Your task to perform on an android device: add a contact in the contacts app Image 0: 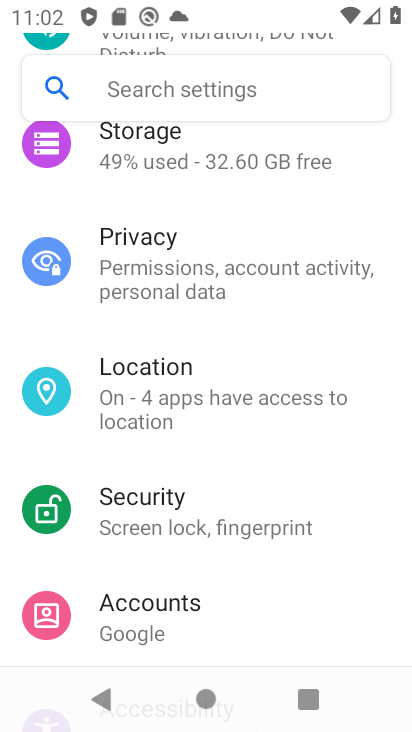
Step 0: drag from (193, 525) to (224, 230)
Your task to perform on an android device: add a contact in the contacts app Image 1: 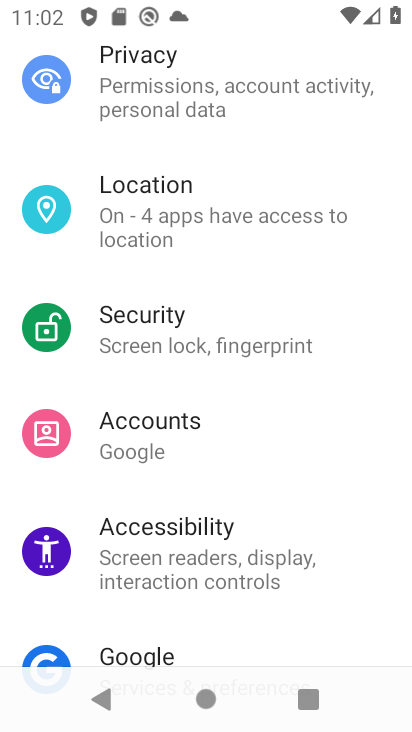
Step 1: drag from (263, 521) to (245, 148)
Your task to perform on an android device: add a contact in the contacts app Image 2: 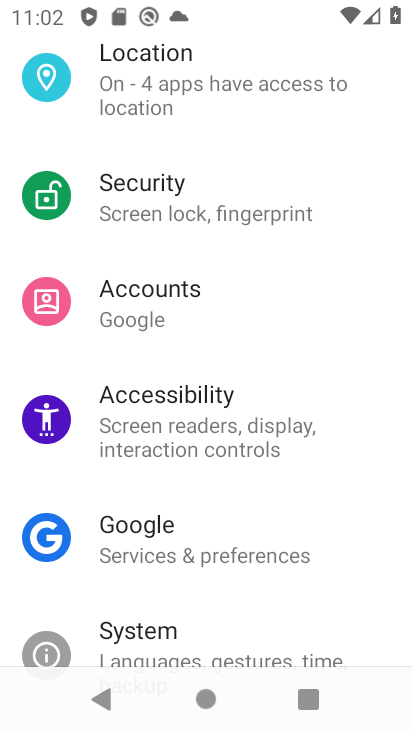
Step 2: press back button
Your task to perform on an android device: add a contact in the contacts app Image 3: 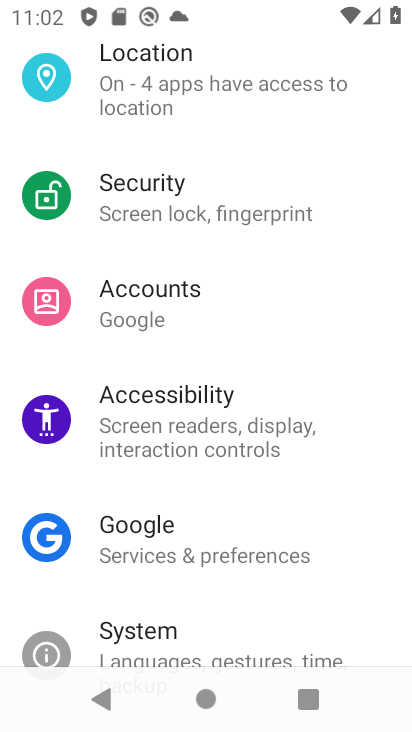
Step 3: press back button
Your task to perform on an android device: add a contact in the contacts app Image 4: 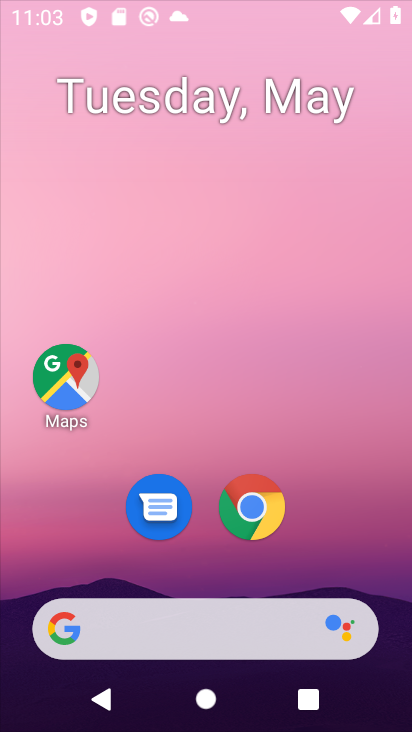
Step 4: press back button
Your task to perform on an android device: add a contact in the contacts app Image 5: 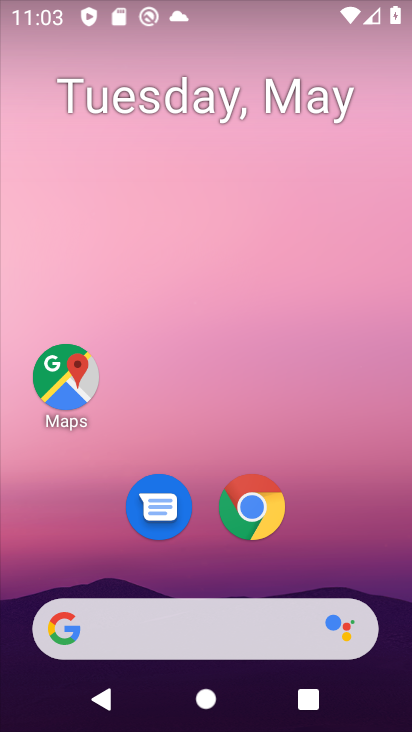
Step 5: drag from (256, 656) to (151, 118)
Your task to perform on an android device: add a contact in the contacts app Image 6: 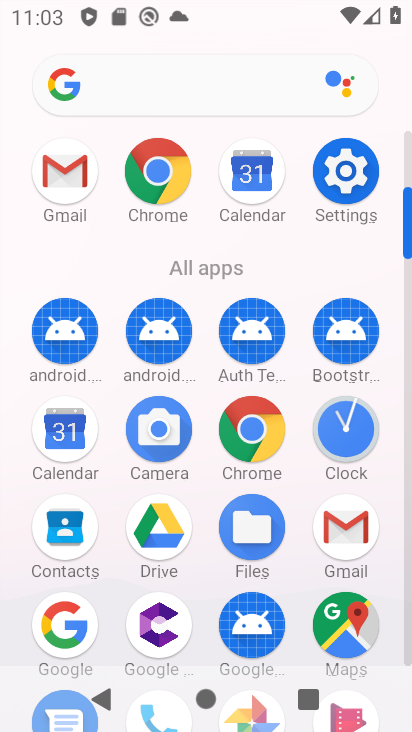
Step 6: click (79, 528)
Your task to perform on an android device: add a contact in the contacts app Image 7: 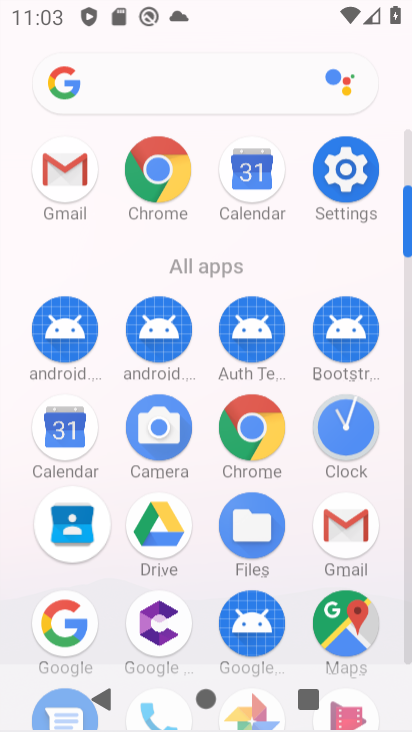
Step 7: click (69, 522)
Your task to perform on an android device: add a contact in the contacts app Image 8: 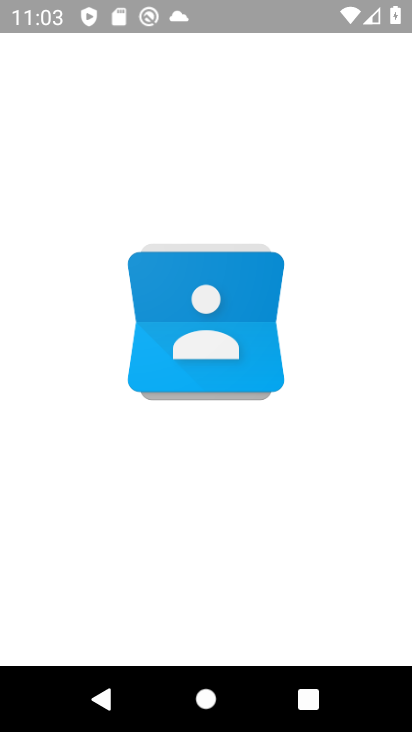
Step 8: click (75, 523)
Your task to perform on an android device: add a contact in the contacts app Image 9: 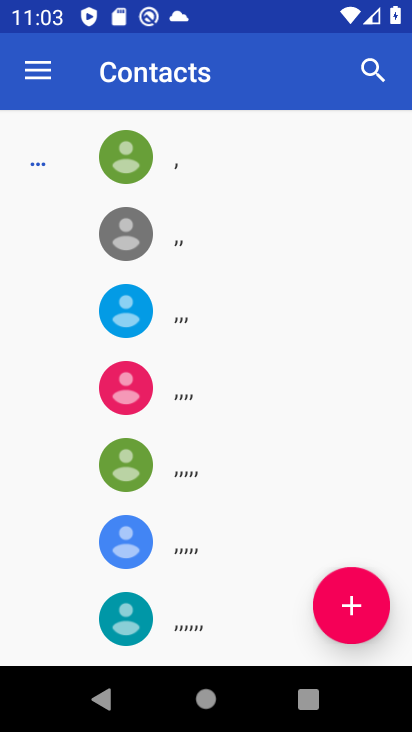
Step 9: click (352, 598)
Your task to perform on an android device: add a contact in the contacts app Image 10: 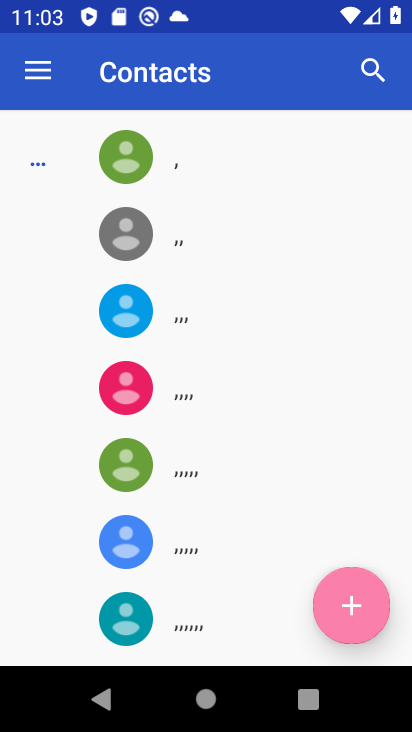
Step 10: click (352, 598)
Your task to perform on an android device: add a contact in the contacts app Image 11: 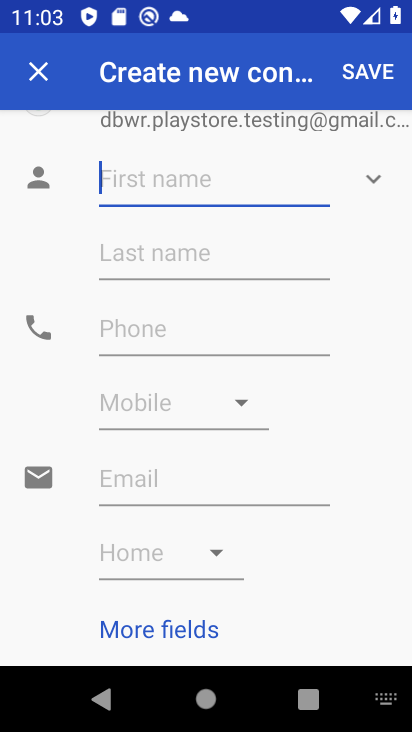
Step 11: type "ffjsgsgcs"
Your task to perform on an android device: add a contact in the contacts app Image 12: 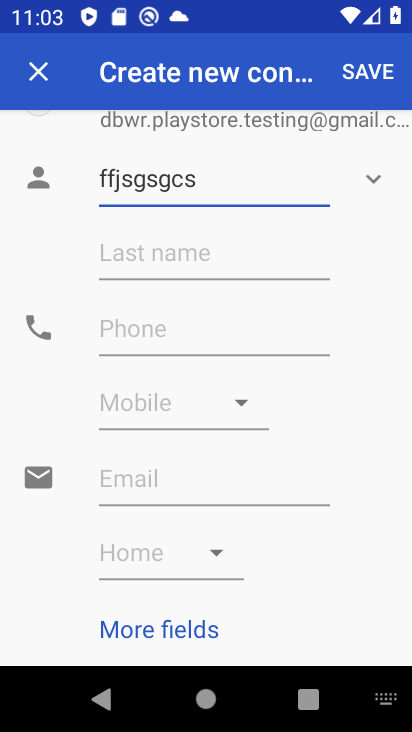
Step 12: click (116, 331)
Your task to perform on an android device: add a contact in the contacts app Image 13: 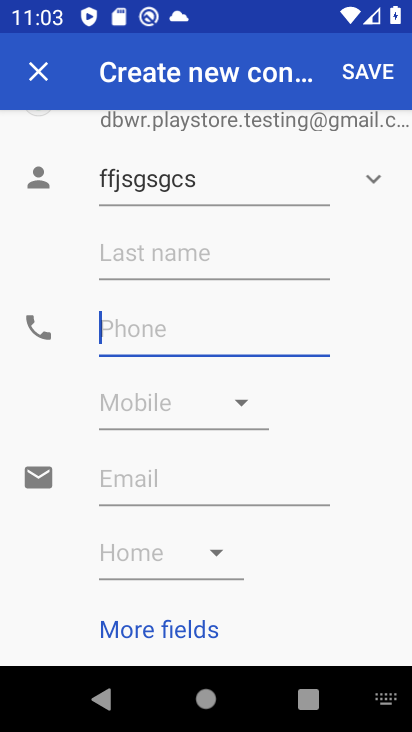
Step 13: click (116, 331)
Your task to perform on an android device: add a contact in the contacts app Image 14: 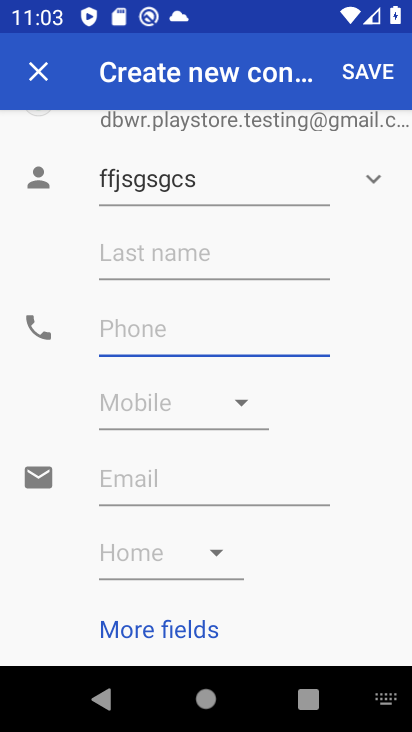
Step 14: type "567867863783"
Your task to perform on an android device: add a contact in the contacts app Image 15: 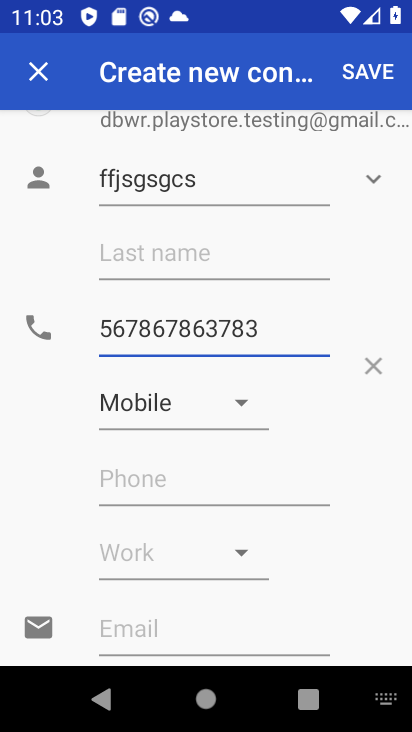
Step 15: click (362, 62)
Your task to perform on an android device: add a contact in the contacts app Image 16: 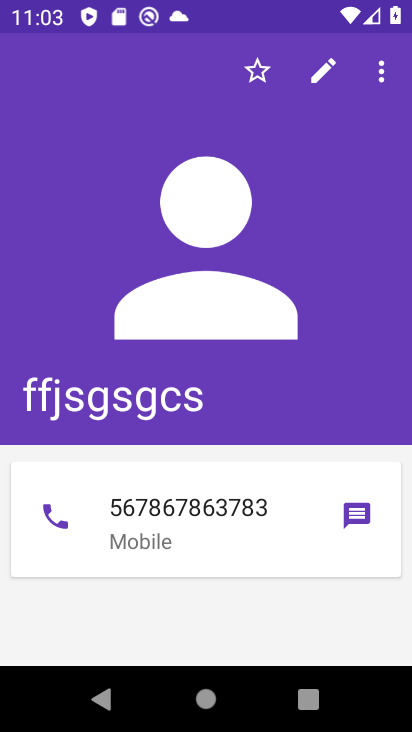
Step 16: task complete